Your task to perform on an android device: Show me popular games on the Play Store Image 0: 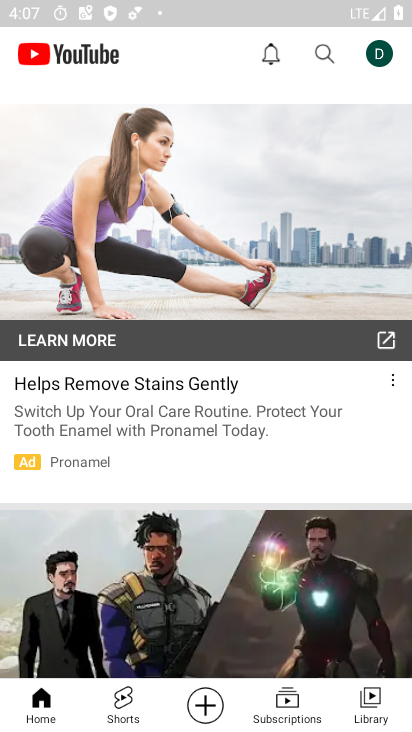
Step 0: press home button
Your task to perform on an android device: Show me popular games on the Play Store Image 1: 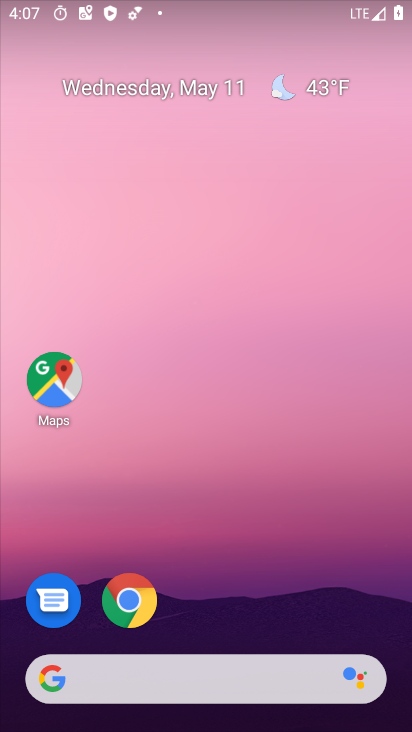
Step 1: drag from (273, 634) to (265, 110)
Your task to perform on an android device: Show me popular games on the Play Store Image 2: 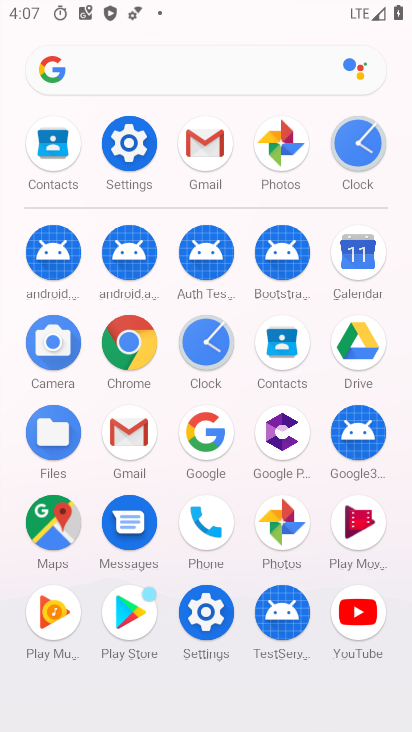
Step 2: click (134, 621)
Your task to perform on an android device: Show me popular games on the Play Store Image 3: 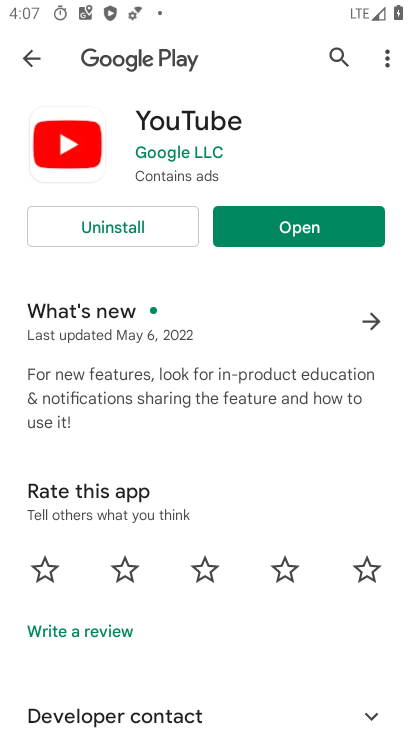
Step 3: click (35, 69)
Your task to perform on an android device: Show me popular games on the Play Store Image 4: 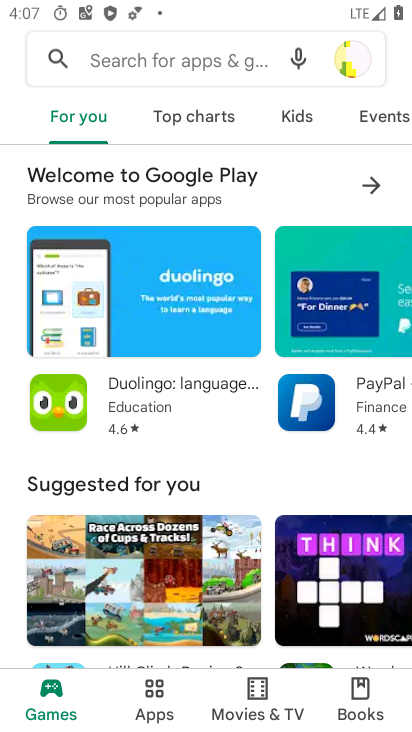
Step 4: drag from (118, 569) to (102, 170)
Your task to perform on an android device: Show me popular games on the Play Store Image 5: 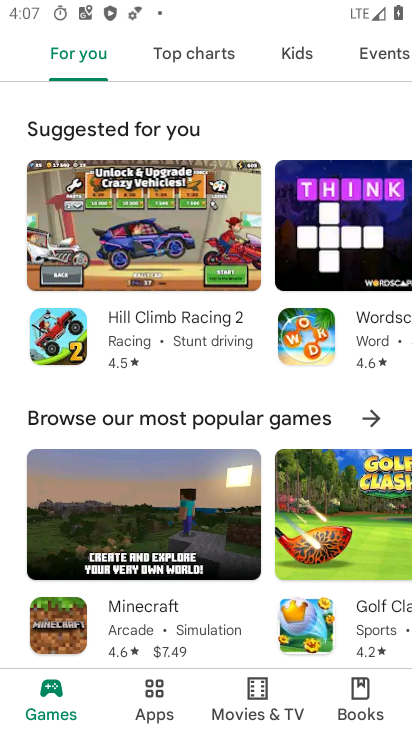
Step 5: click (184, 421)
Your task to perform on an android device: Show me popular games on the Play Store Image 6: 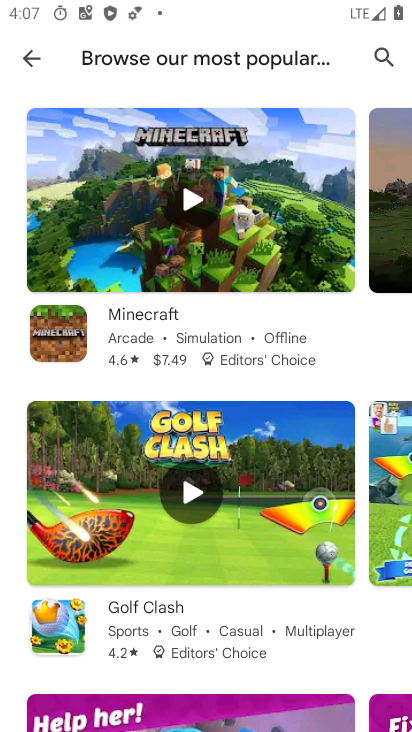
Step 6: task complete